Your task to perform on an android device: find snoozed emails in the gmail app Image 0: 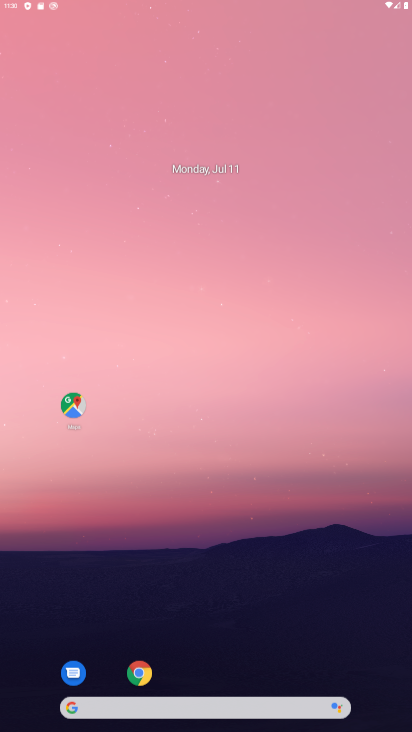
Step 0: press home button
Your task to perform on an android device: find snoozed emails in the gmail app Image 1: 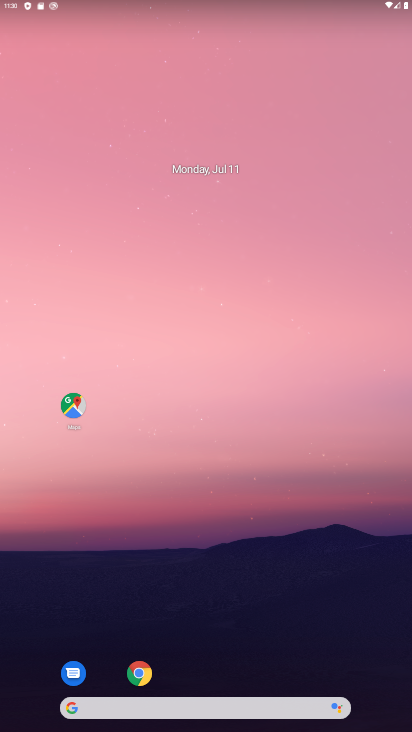
Step 1: drag from (203, 679) to (203, 155)
Your task to perform on an android device: find snoozed emails in the gmail app Image 2: 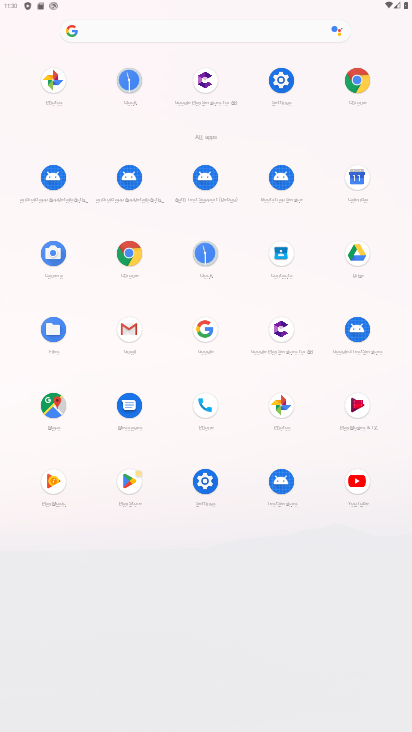
Step 2: click (126, 325)
Your task to perform on an android device: find snoozed emails in the gmail app Image 3: 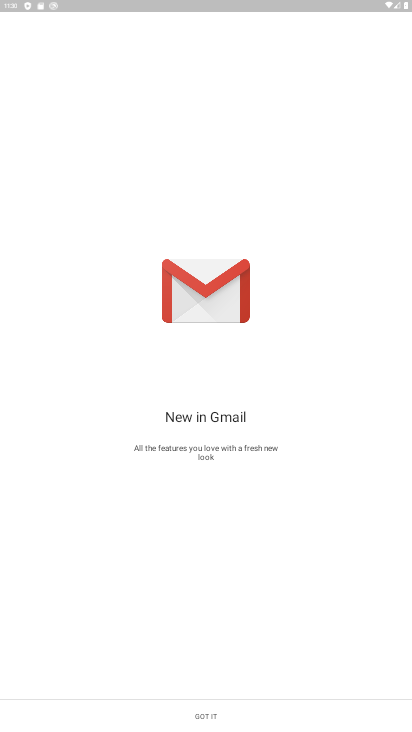
Step 3: click (210, 719)
Your task to perform on an android device: find snoozed emails in the gmail app Image 4: 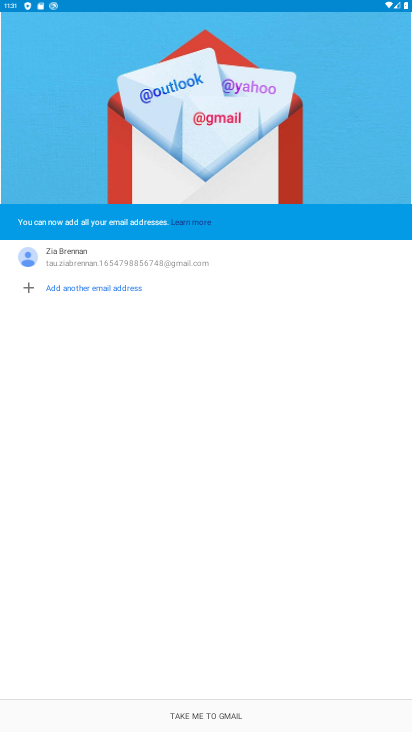
Step 4: click (222, 715)
Your task to perform on an android device: find snoozed emails in the gmail app Image 5: 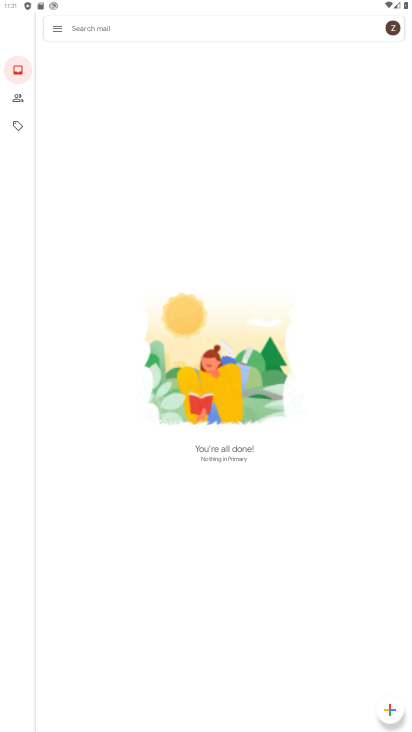
Step 5: click (59, 30)
Your task to perform on an android device: find snoozed emails in the gmail app Image 6: 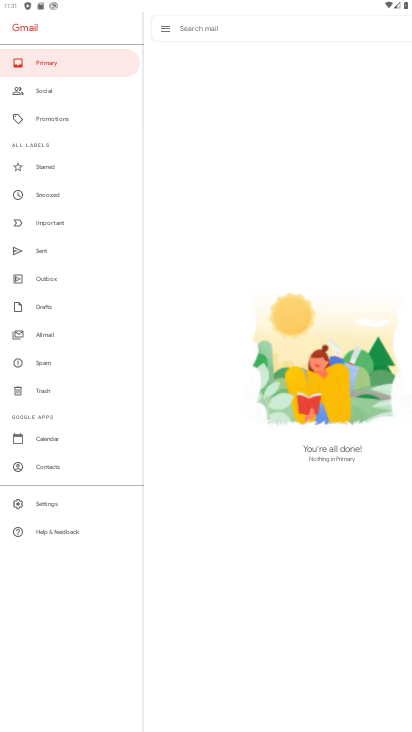
Step 6: click (58, 195)
Your task to perform on an android device: find snoozed emails in the gmail app Image 7: 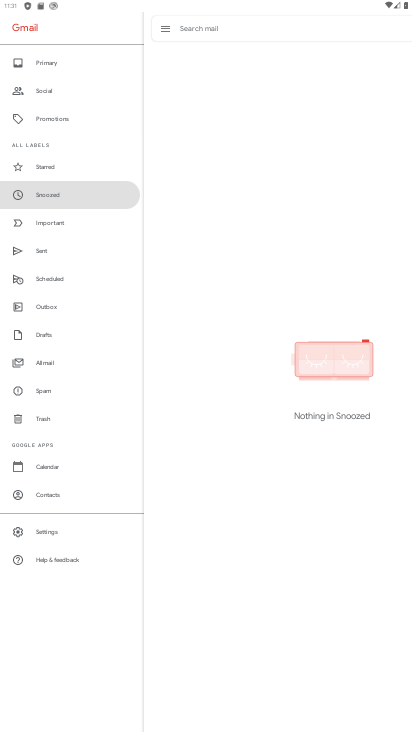
Step 7: task complete